Your task to perform on an android device: turn on translation in the chrome app Image 0: 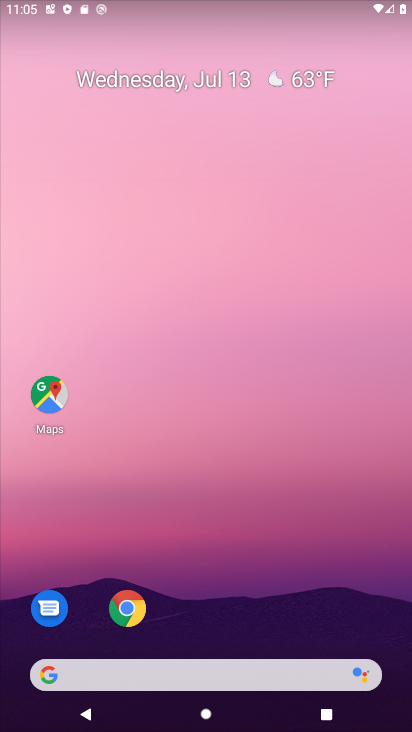
Step 0: press home button
Your task to perform on an android device: turn on translation in the chrome app Image 1: 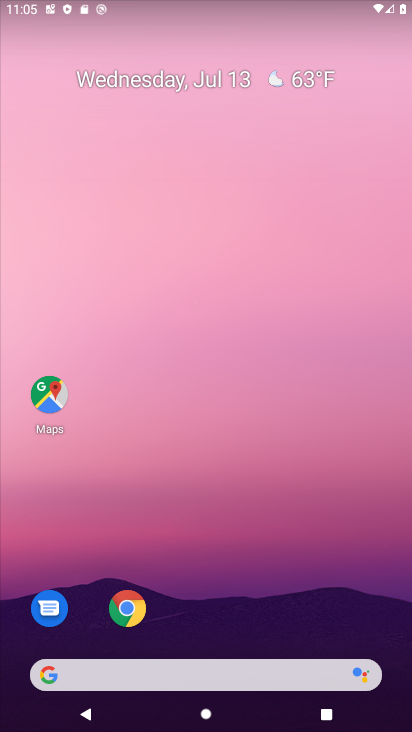
Step 1: click (135, 609)
Your task to perform on an android device: turn on translation in the chrome app Image 2: 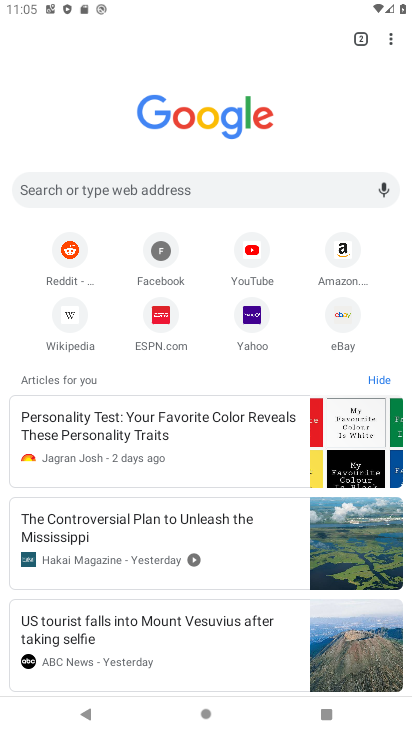
Step 2: drag from (387, 34) to (266, 325)
Your task to perform on an android device: turn on translation in the chrome app Image 3: 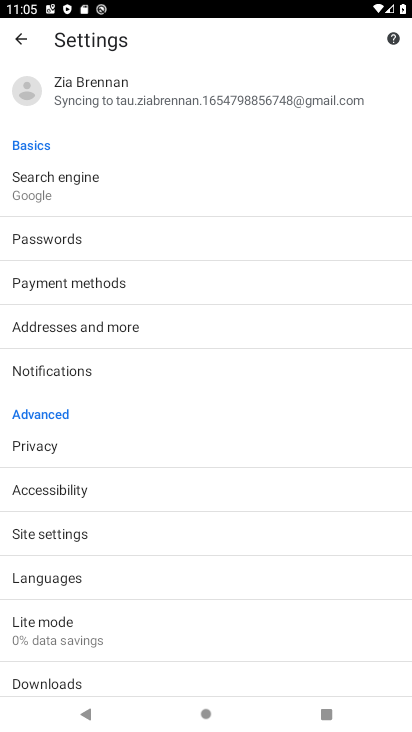
Step 3: click (36, 577)
Your task to perform on an android device: turn on translation in the chrome app Image 4: 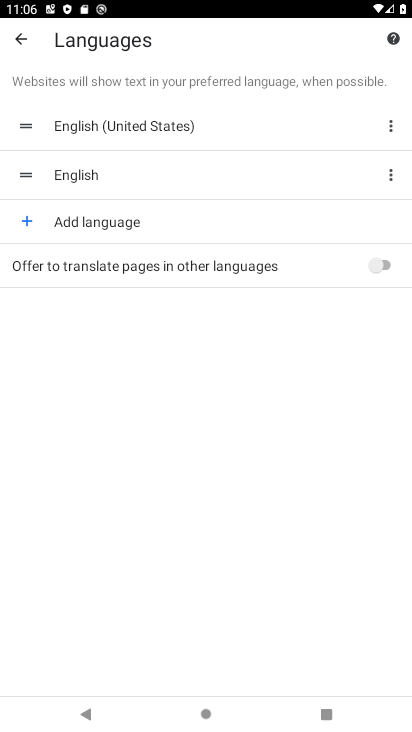
Step 4: click (386, 264)
Your task to perform on an android device: turn on translation in the chrome app Image 5: 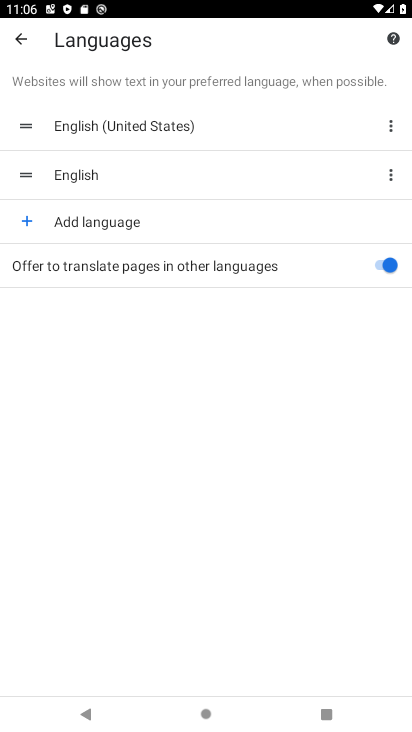
Step 5: task complete